Your task to perform on an android device: check android version Image 0: 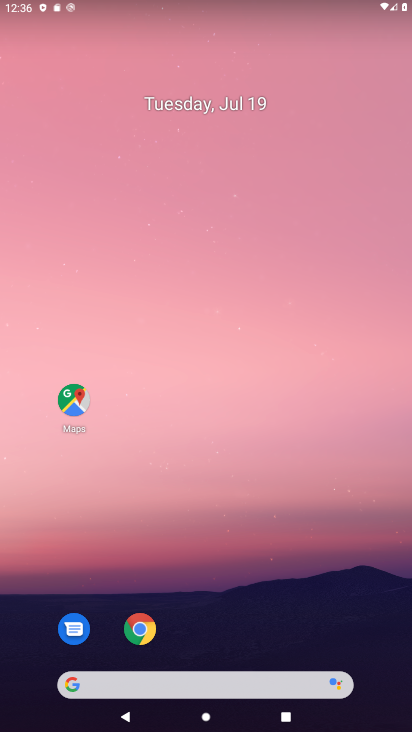
Step 0: drag from (292, 605) to (299, 4)
Your task to perform on an android device: check android version Image 1: 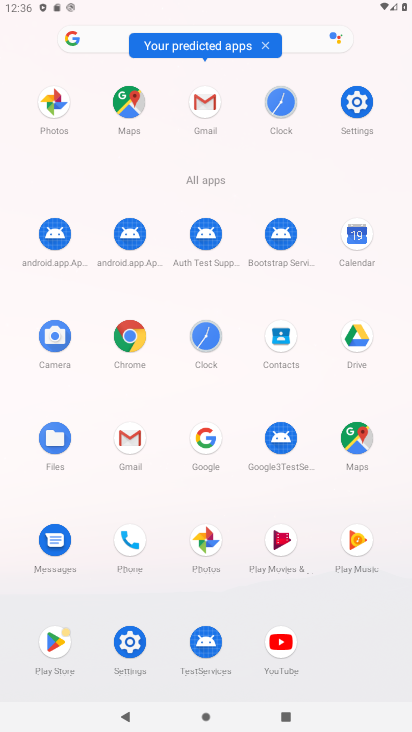
Step 1: click (370, 105)
Your task to perform on an android device: check android version Image 2: 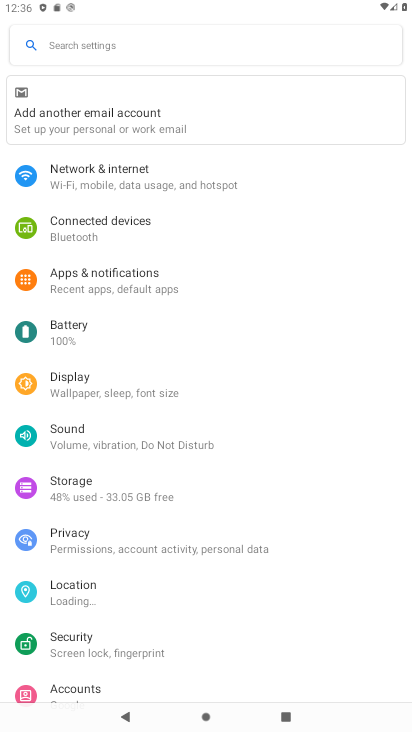
Step 2: drag from (252, 577) to (330, 0)
Your task to perform on an android device: check android version Image 3: 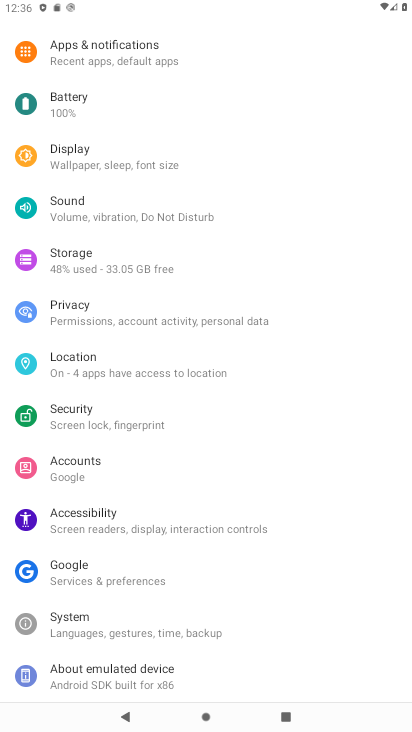
Step 3: click (99, 685)
Your task to perform on an android device: check android version Image 4: 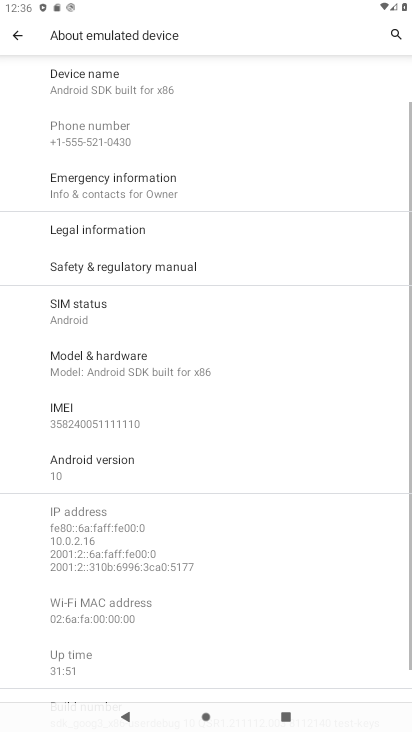
Step 4: drag from (265, 625) to (312, 203)
Your task to perform on an android device: check android version Image 5: 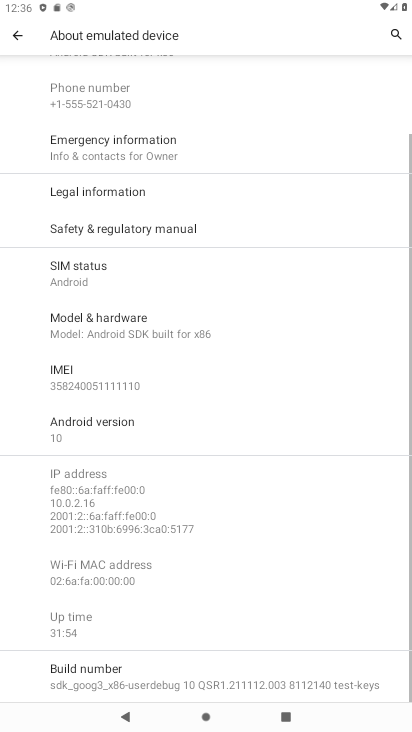
Step 5: click (152, 440)
Your task to perform on an android device: check android version Image 6: 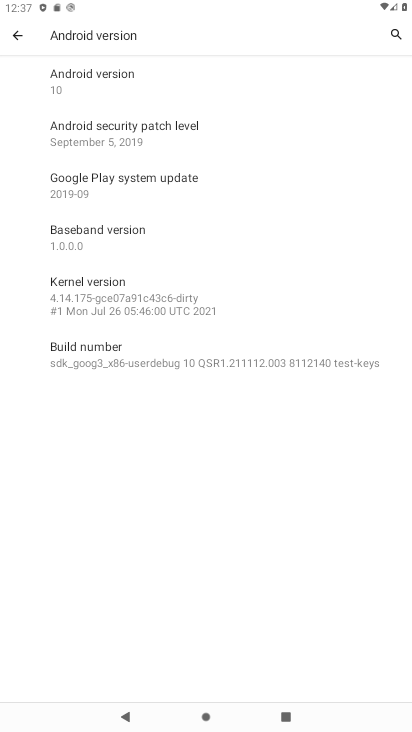
Step 6: click (201, 80)
Your task to perform on an android device: check android version Image 7: 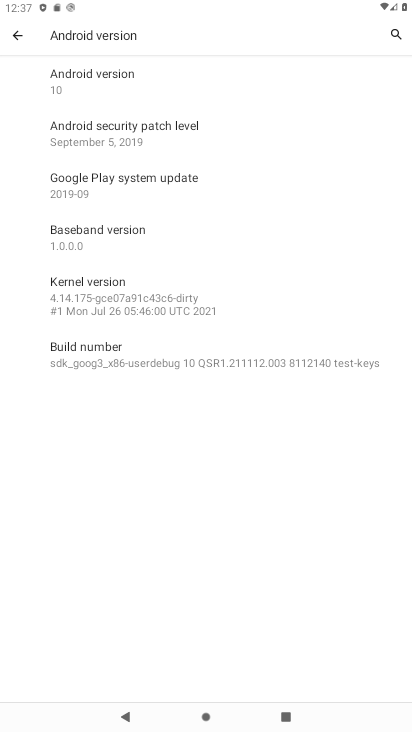
Step 7: task complete